Your task to perform on an android device: Open CNN.com Image 0: 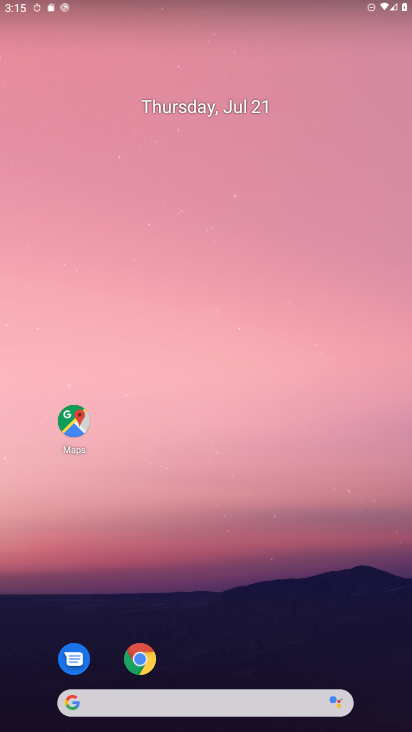
Step 0: press home button
Your task to perform on an android device: Open CNN.com Image 1: 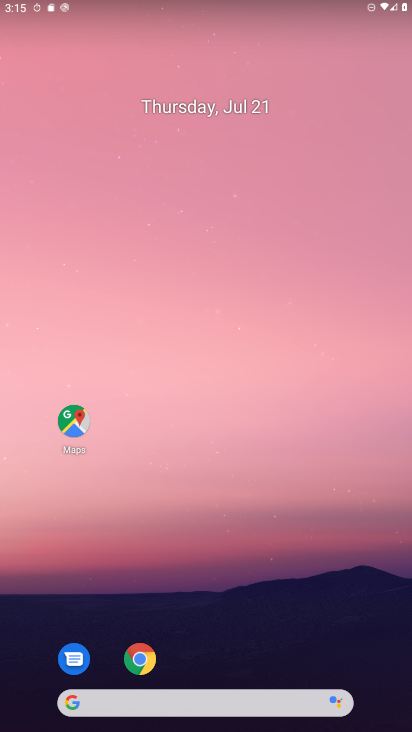
Step 1: click (235, 707)
Your task to perform on an android device: Open CNN.com Image 2: 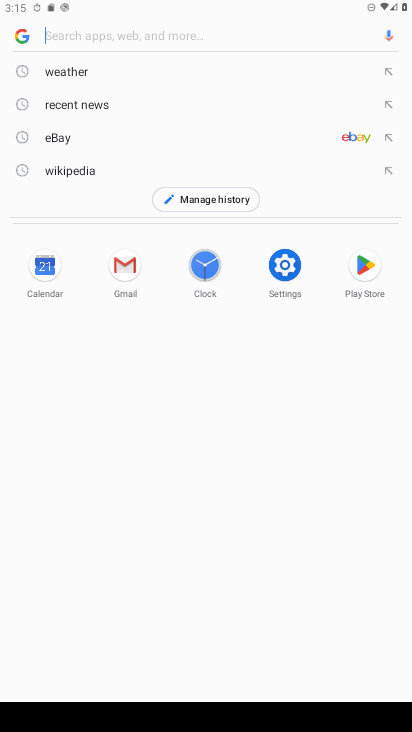
Step 2: type "CNN.com"
Your task to perform on an android device: Open CNN.com Image 3: 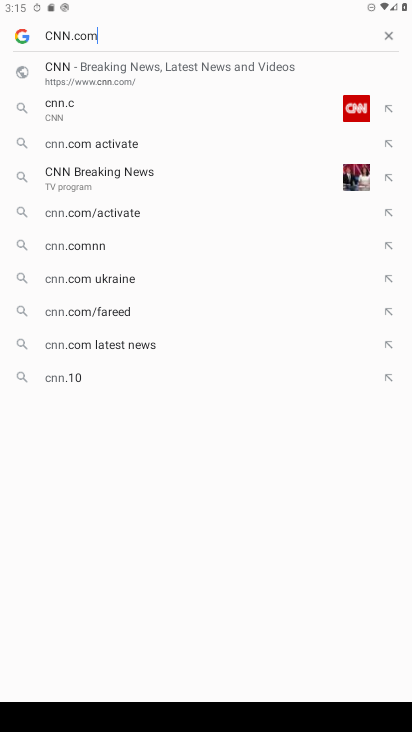
Step 3: type ""
Your task to perform on an android device: Open CNN.com Image 4: 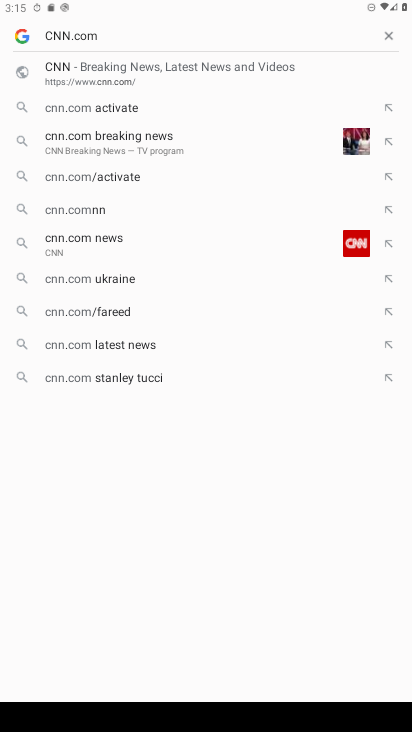
Step 4: click (88, 71)
Your task to perform on an android device: Open CNN.com Image 5: 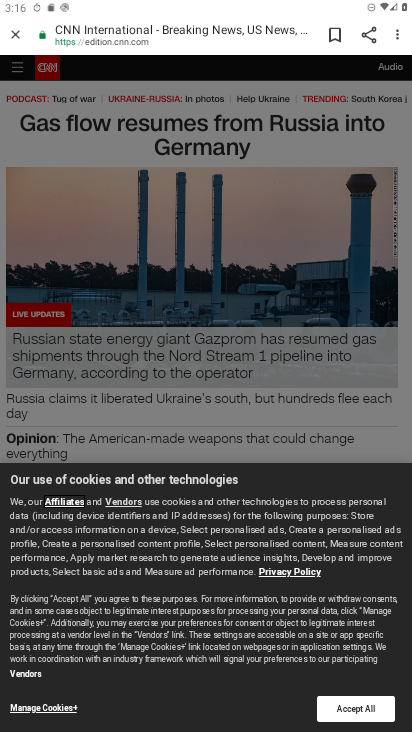
Step 5: task complete